Your task to perform on an android device: read, delete, or share a saved page in the chrome app Image 0: 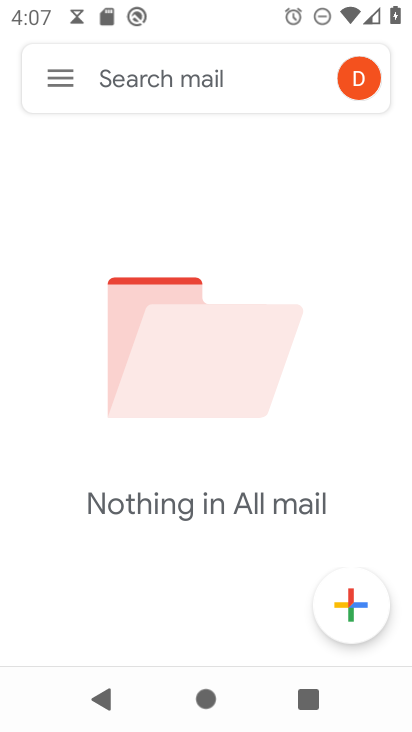
Step 0: press home button
Your task to perform on an android device: read, delete, or share a saved page in the chrome app Image 1: 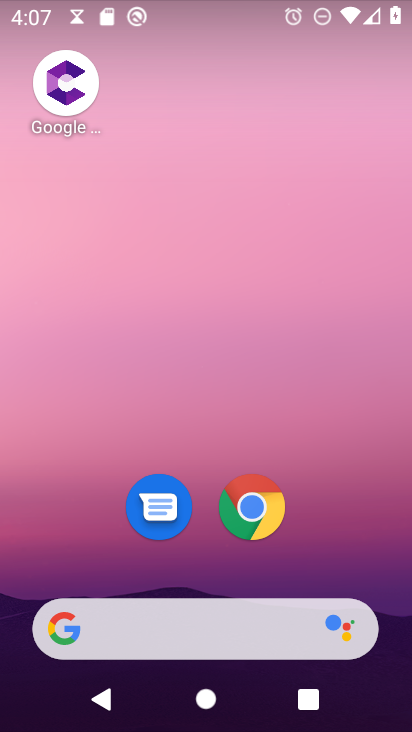
Step 1: click (241, 513)
Your task to perform on an android device: read, delete, or share a saved page in the chrome app Image 2: 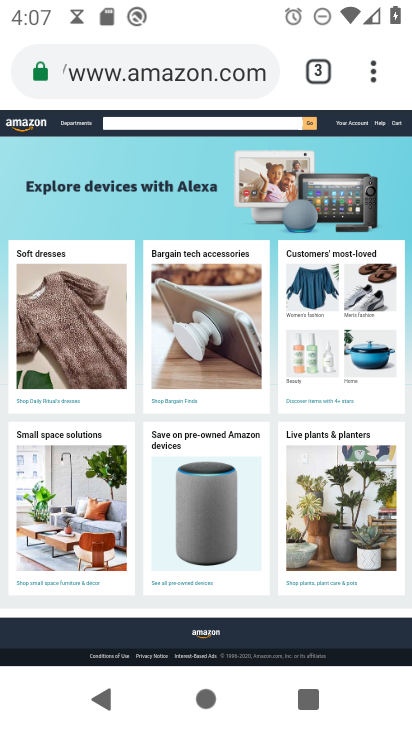
Step 2: click (372, 70)
Your task to perform on an android device: read, delete, or share a saved page in the chrome app Image 3: 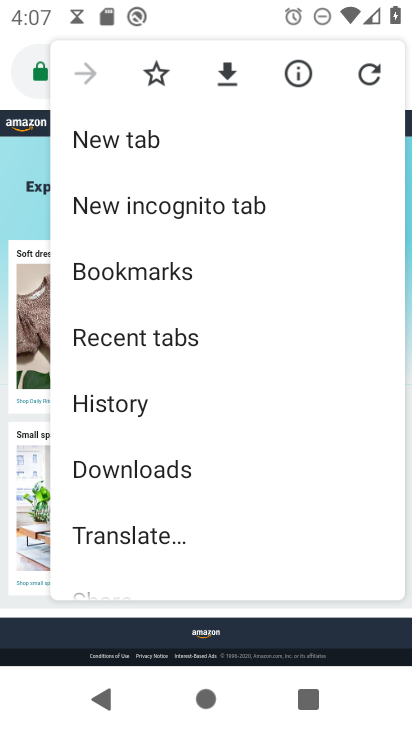
Step 3: click (171, 462)
Your task to perform on an android device: read, delete, or share a saved page in the chrome app Image 4: 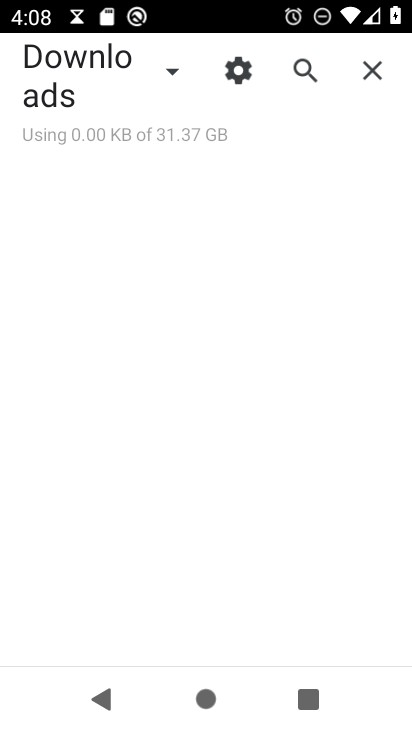
Step 4: click (165, 67)
Your task to perform on an android device: read, delete, or share a saved page in the chrome app Image 5: 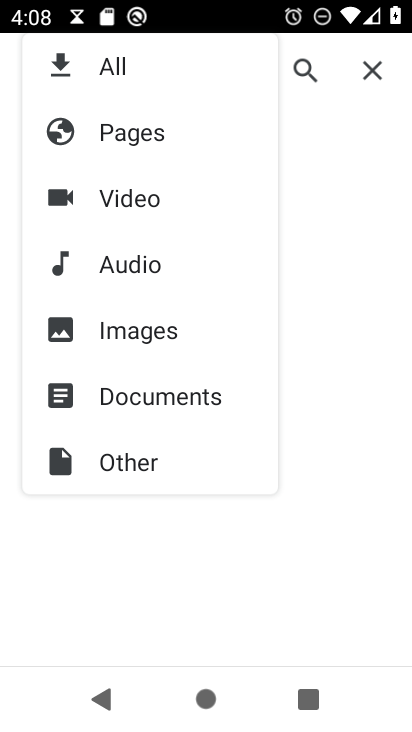
Step 5: click (132, 140)
Your task to perform on an android device: read, delete, or share a saved page in the chrome app Image 6: 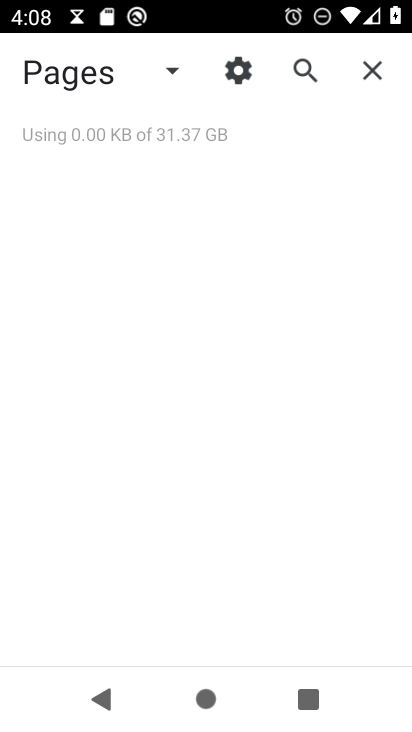
Step 6: task complete